Your task to perform on an android device: set the stopwatch Image 0: 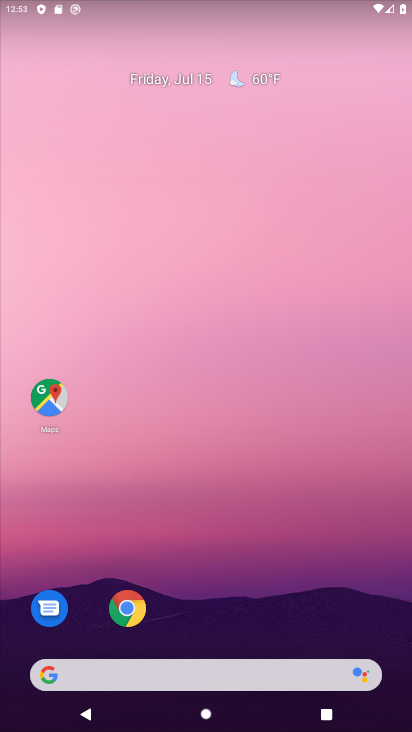
Step 0: drag from (275, 595) to (278, 0)
Your task to perform on an android device: set the stopwatch Image 1: 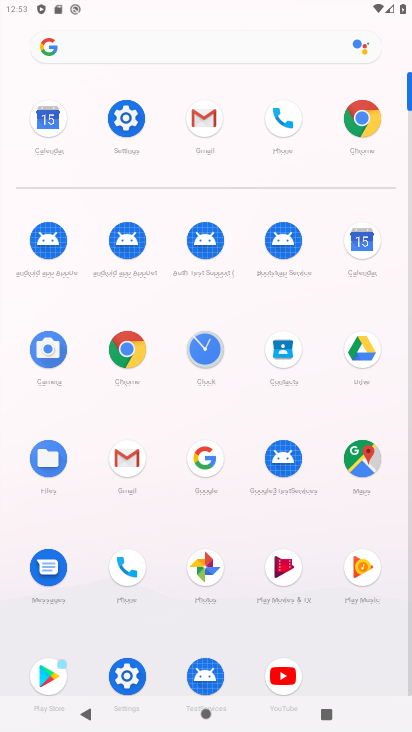
Step 1: click (199, 355)
Your task to perform on an android device: set the stopwatch Image 2: 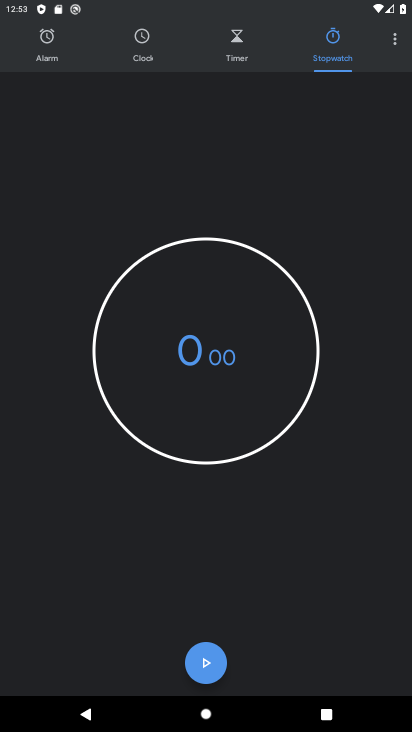
Step 2: click (204, 658)
Your task to perform on an android device: set the stopwatch Image 3: 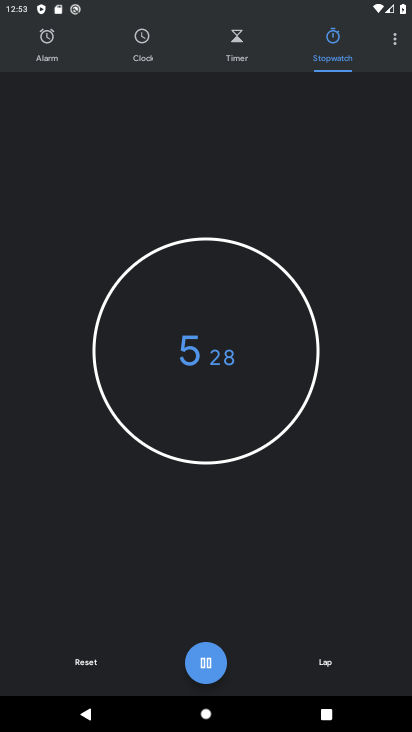
Step 3: task complete